Your task to perform on an android device: open app "Google Pay: Save, Pay, Manage" Image 0: 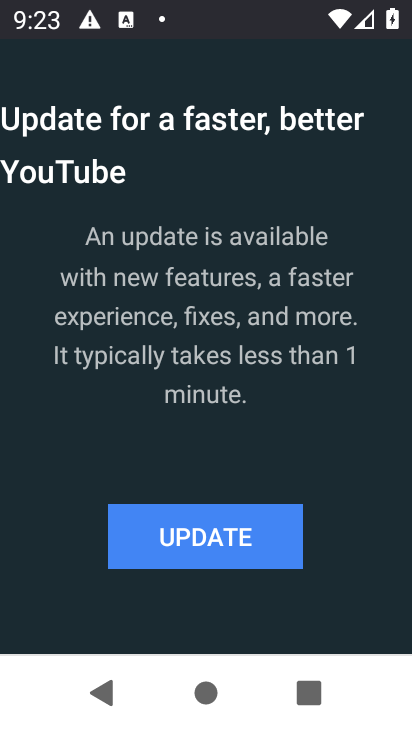
Step 0: press home button
Your task to perform on an android device: open app "Google Pay: Save, Pay, Manage" Image 1: 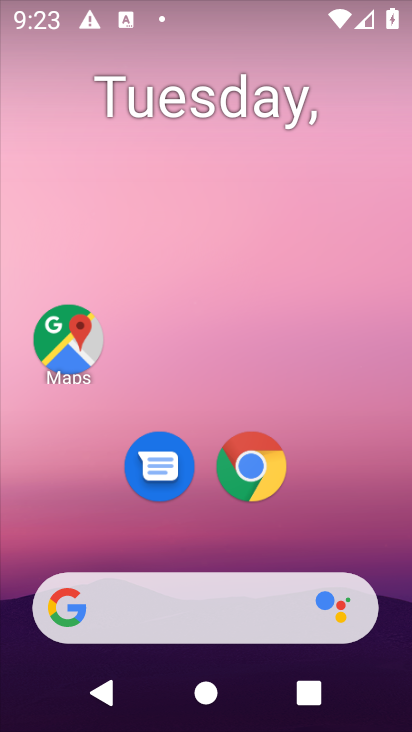
Step 1: drag from (228, 546) to (280, 47)
Your task to perform on an android device: open app "Google Pay: Save, Pay, Manage" Image 2: 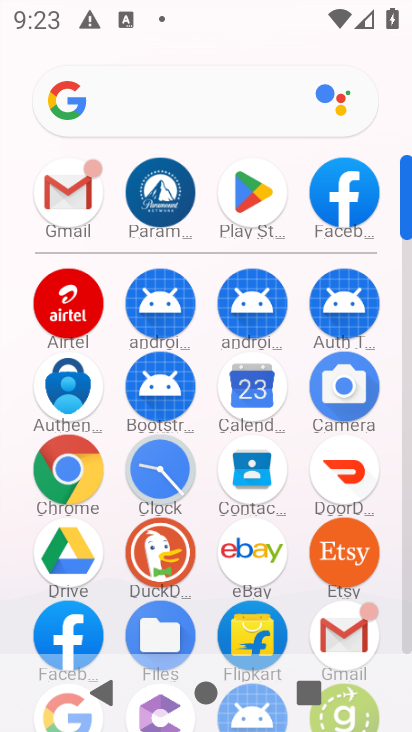
Step 2: click (261, 190)
Your task to perform on an android device: open app "Google Pay: Save, Pay, Manage" Image 3: 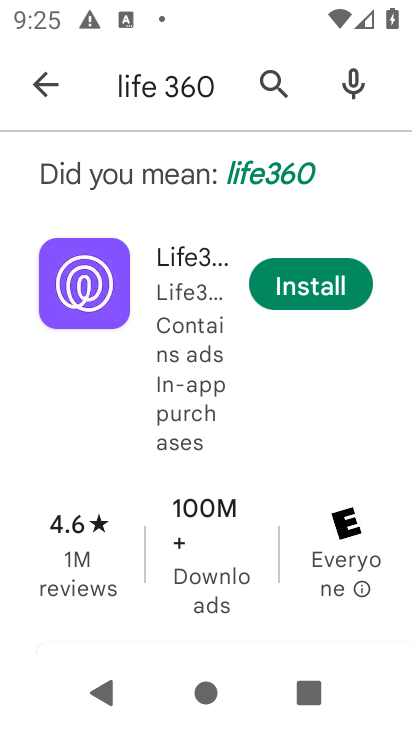
Step 3: click (289, 79)
Your task to perform on an android device: open app "Google Pay: Save, Pay, Manage" Image 4: 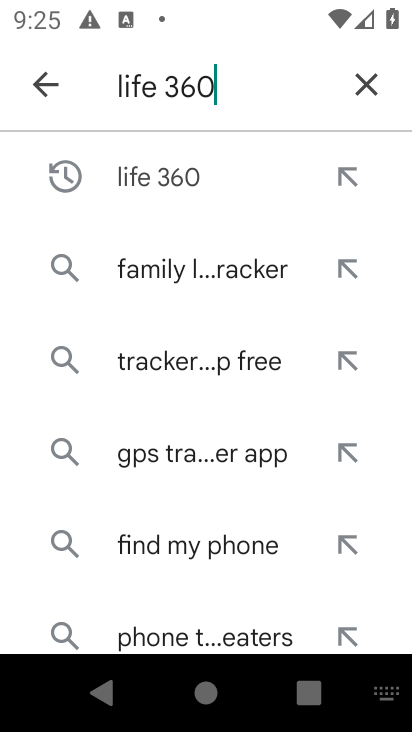
Step 4: click (370, 80)
Your task to perform on an android device: open app "Google Pay: Save, Pay, Manage" Image 5: 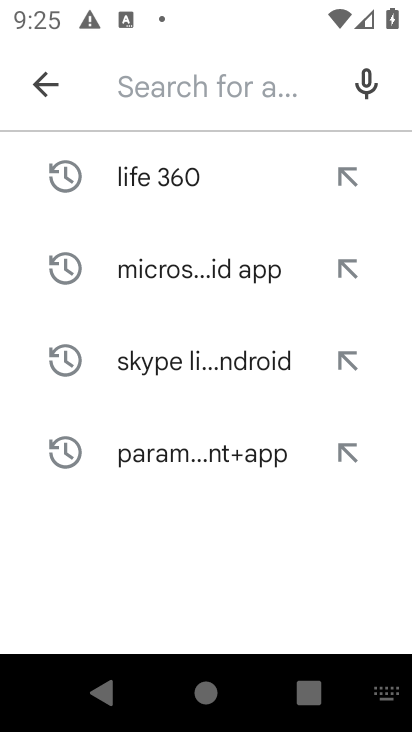
Step 5: click (168, 90)
Your task to perform on an android device: open app "Google Pay: Save, Pay, Manage" Image 6: 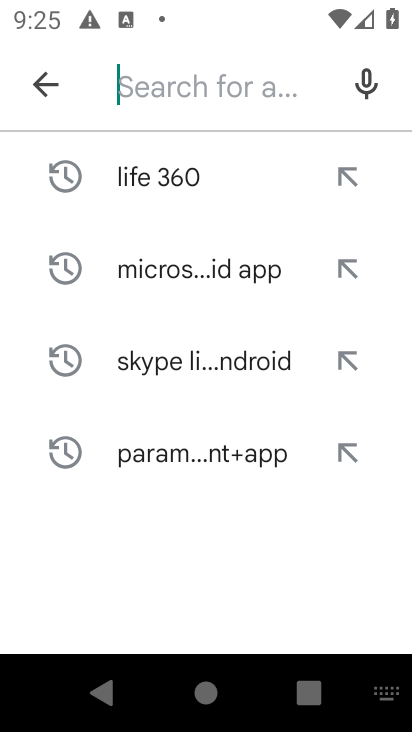
Step 6: type "Google Pay"
Your task to perform on an android device: open app "Google Pay: Save, Pay, Manage" Image 7: 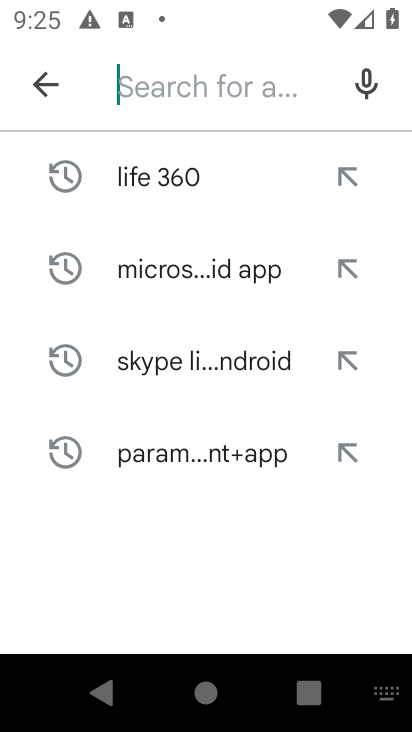
Step 7: click (126, 573)
Your task to perform on an android device: open app "Google Pay: Save, Pay, Manage" Image 8: 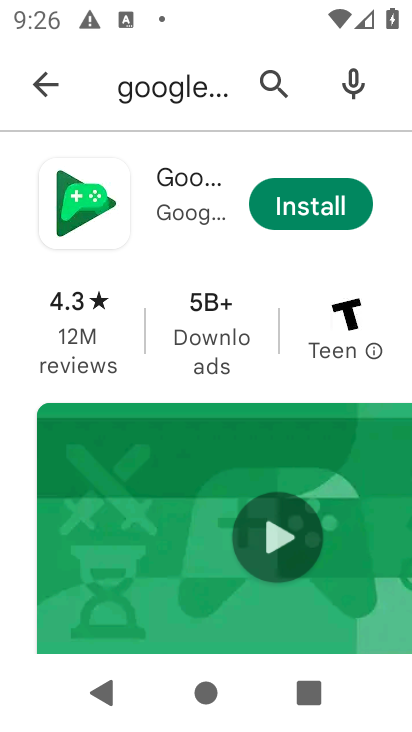
Step 8: click (159, 189)
Your task to perform on an android device: open app "Google Pay: Save, Pay, Manage" Image 9: 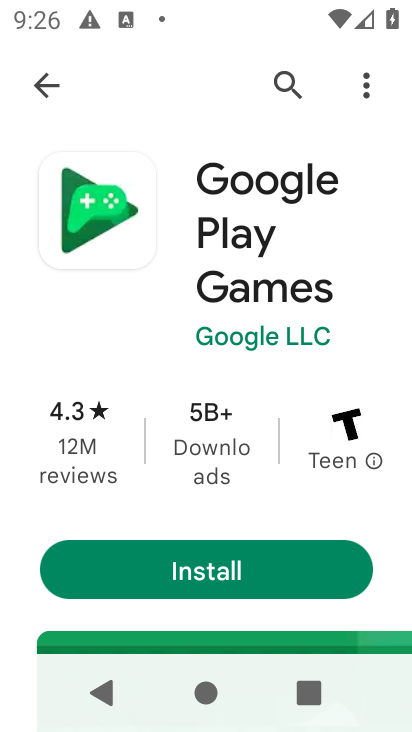
Step 9: task complete